Your task to perform on an android device: turn off data saver in the chrome app Image 0: 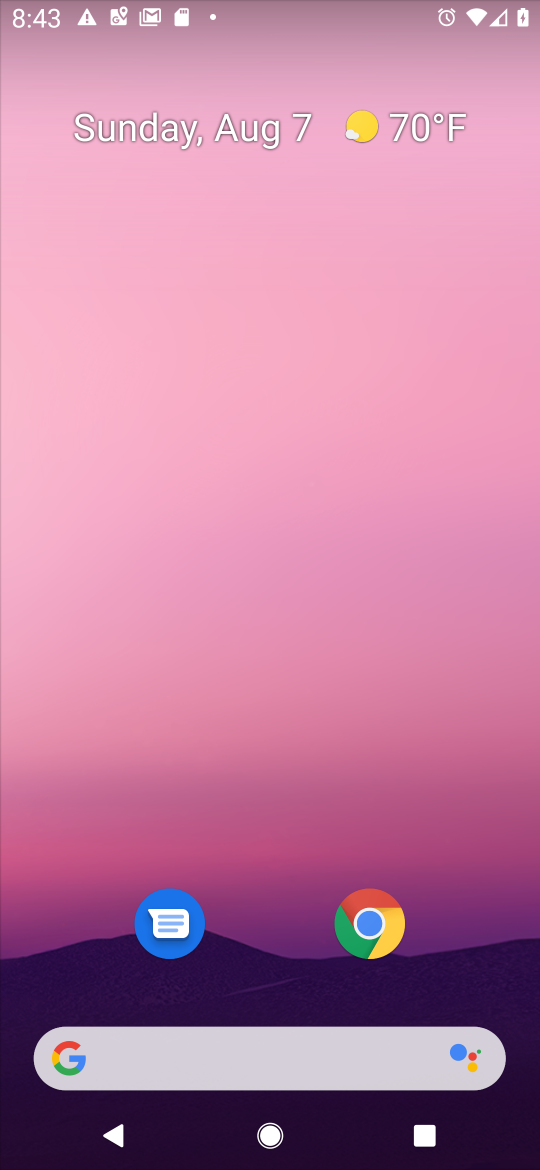
Step 0: drag from (484, 934) to (194, 139)
Your task to perform on an android device: turn off data saver in the chrome app Image 1: 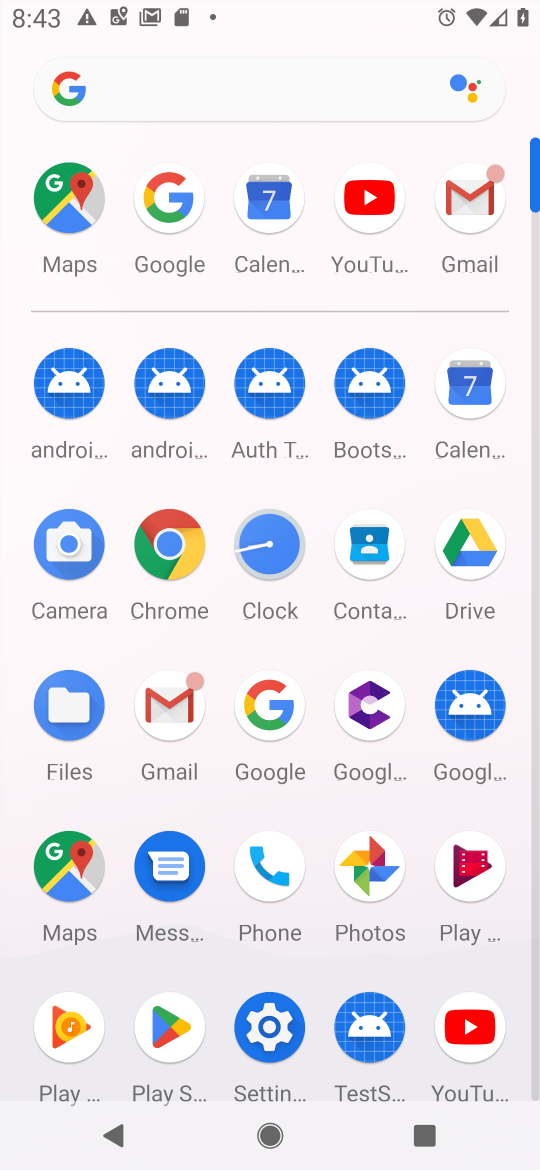
Step 1: click (151, 549)
Your task to perform on an android device: turn off data saver in the chrome app Image 2: 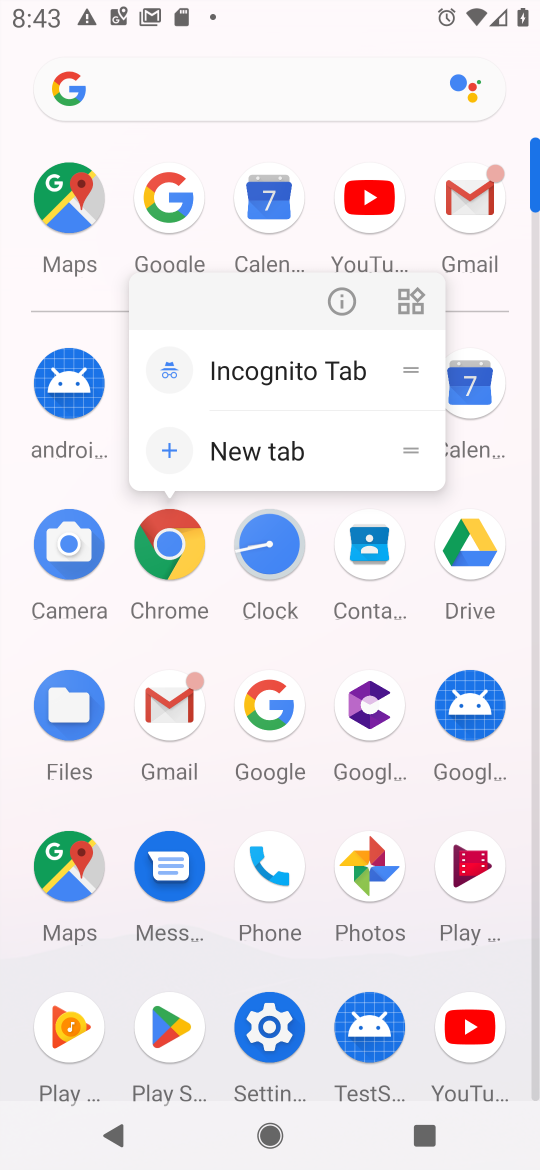
Step 2: click (151, 549)
Your task to perform on an android device: turn off data saver in the chrome app Image 3: 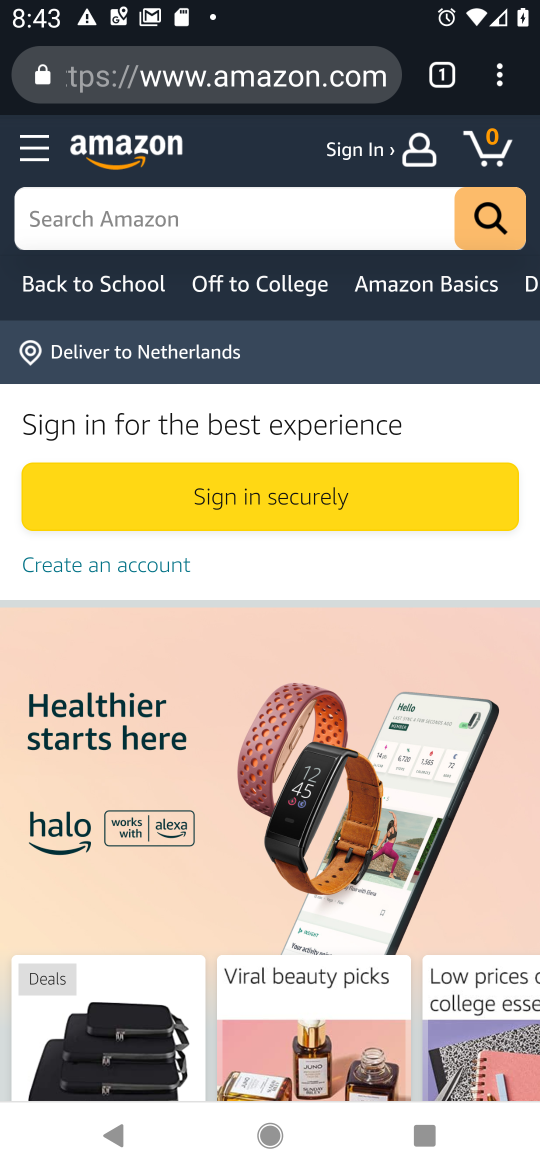
Step 3: click (495, 62)
Your task to perform on an android device: turn off data saver in the chrome app Image 4: 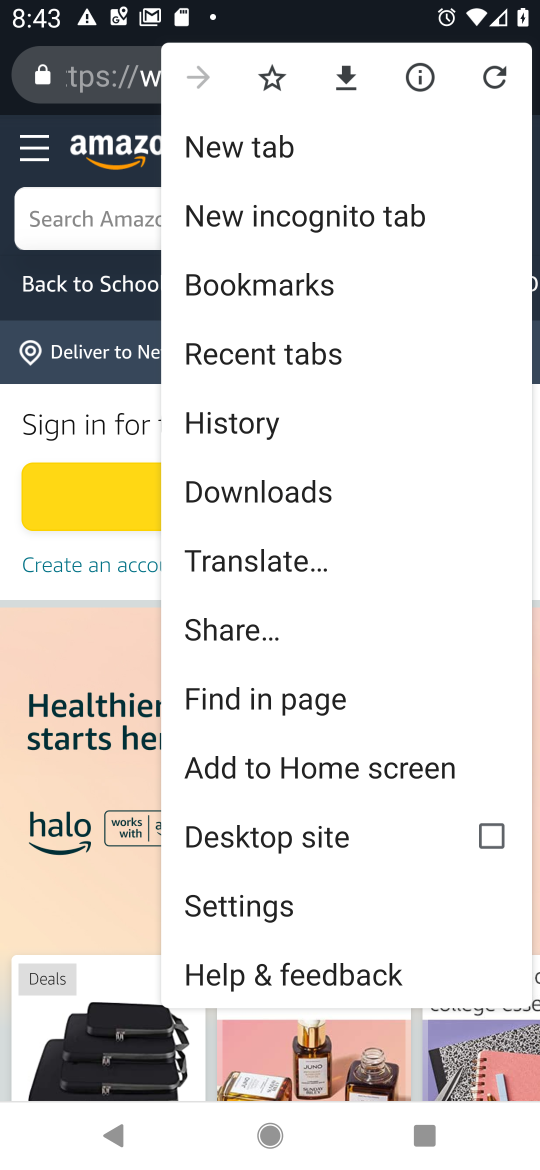
Step 4: click (276, 923)
Your task to perform on an android device: turn off data saver in the chrome app Image 5: 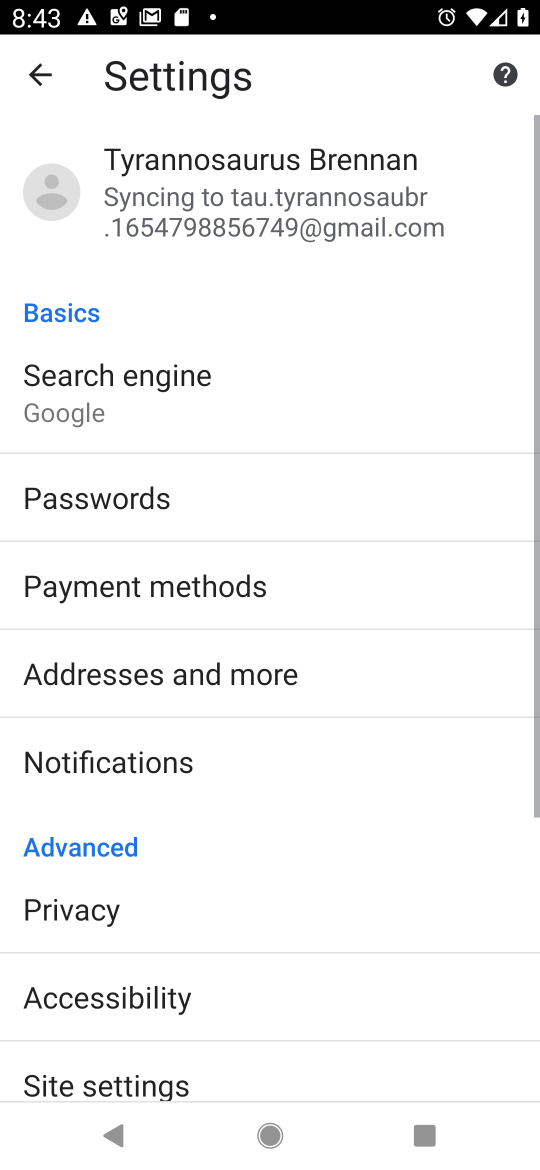
Step 5: drag from (179, 931) to (173, 249)
Your task to perform on an android device: turn off data saver in the chrome app Image 6: 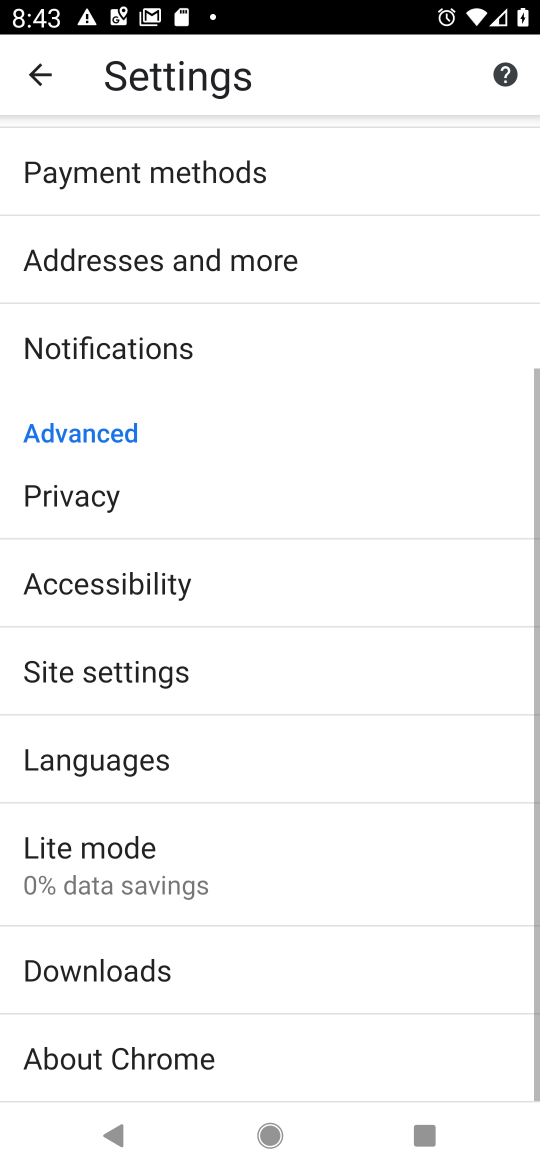
Step 6: click (135, 871)
Your task to perform on an android device: turn off data saver in the chrome app Image 7: 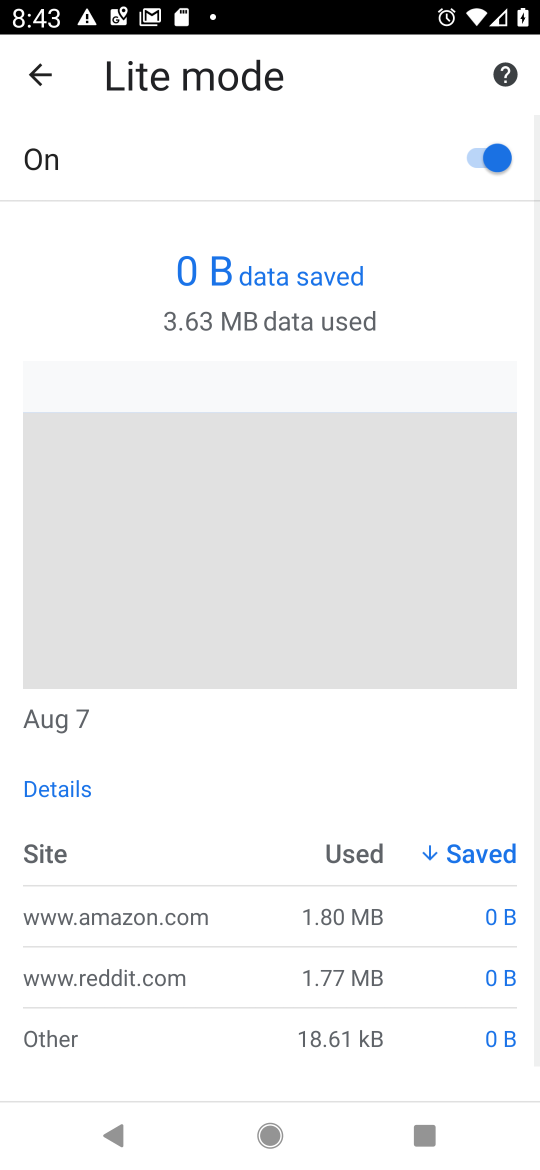
Step 7: click (481, 174)
Your task to perform on an android device: turn off data saver in the chrome app Image 8: 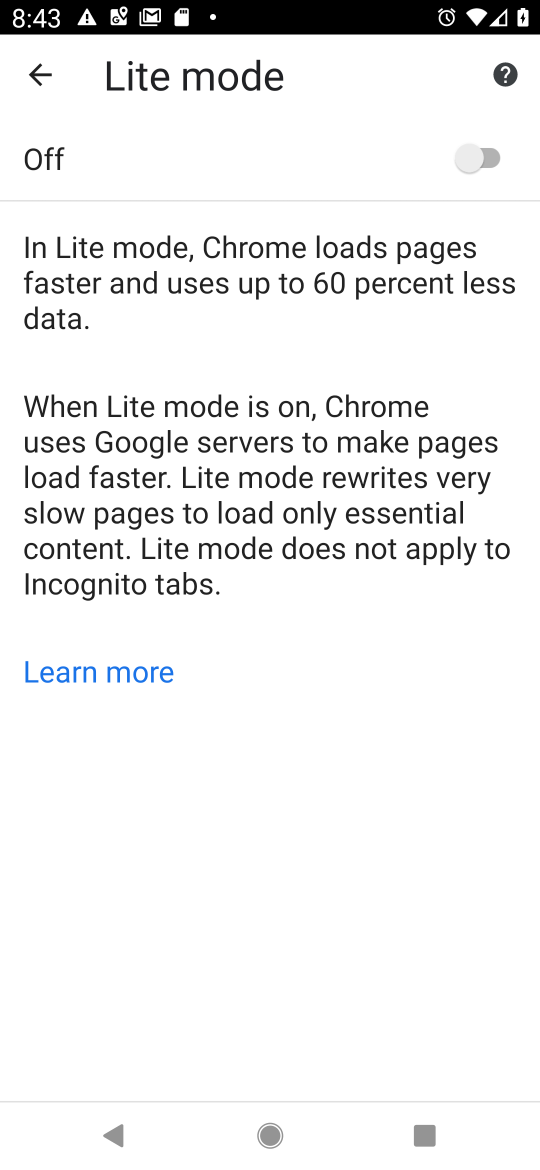
Step 8: task complete